Your task to perform on an android device: turn on data saver in the chrome app Image 0: 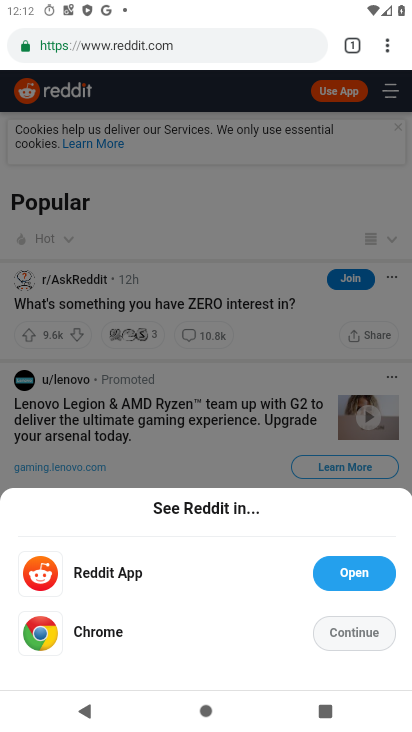
Step 0: press home button
Your task to perform on an android device: turn on data saver in the chrome app Image 1: 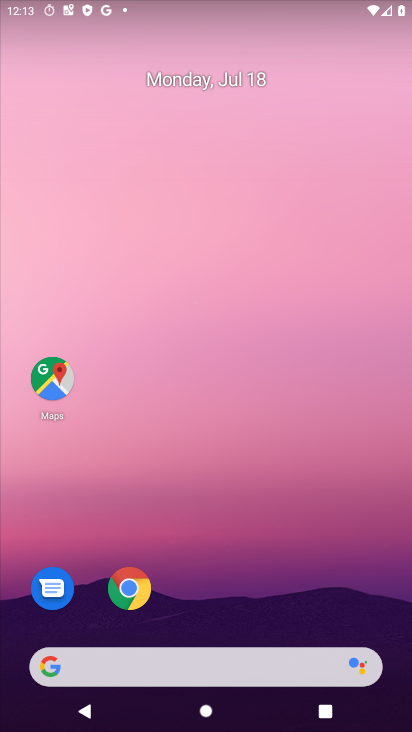
Step 1: click (133, 581)
Your task to perform on an android device: turn on data saver in the chrome app Image 2: 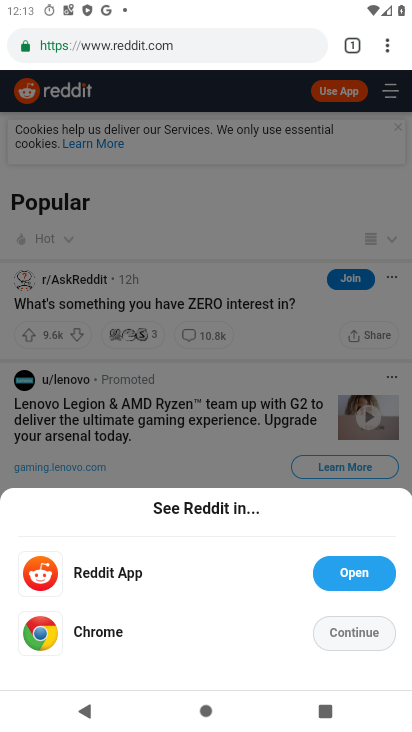
Step 2: click (379, 38)
Your task to perform on an android device: turn on data saver in the chrome app Image 3: 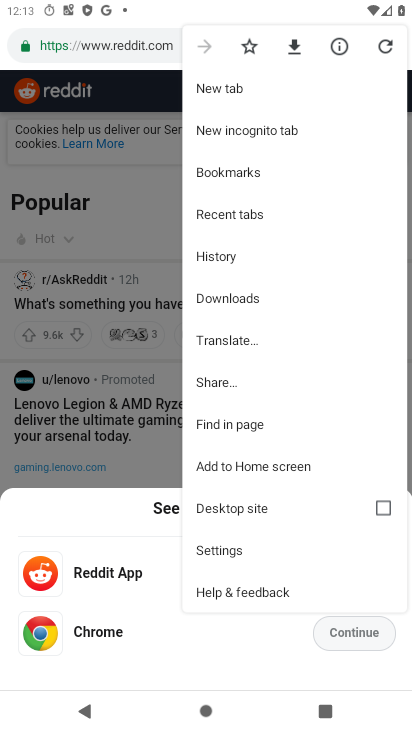
Step 3: click (255, 552)
Your task to perform on an android device: turn on data saver in the chrome app Image 4: 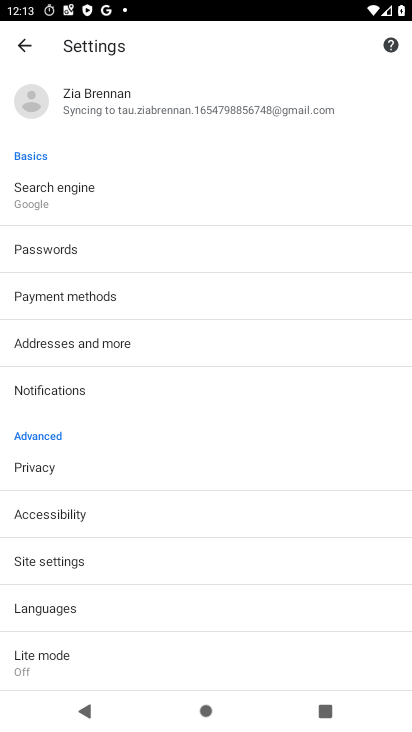
Step 4: click (101, 657)
Your task to perform on an android device: turn on data saver in the chrome app Image 5: 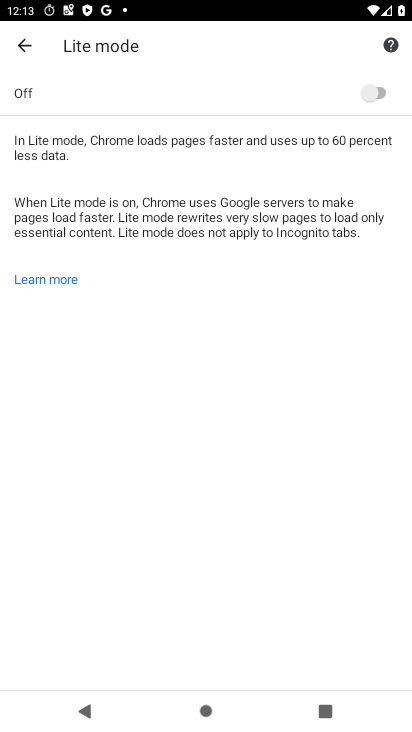
Step 5: click (378, 94)
Your task to perform on an android device: turn on data saver in the chrome app Image 6: 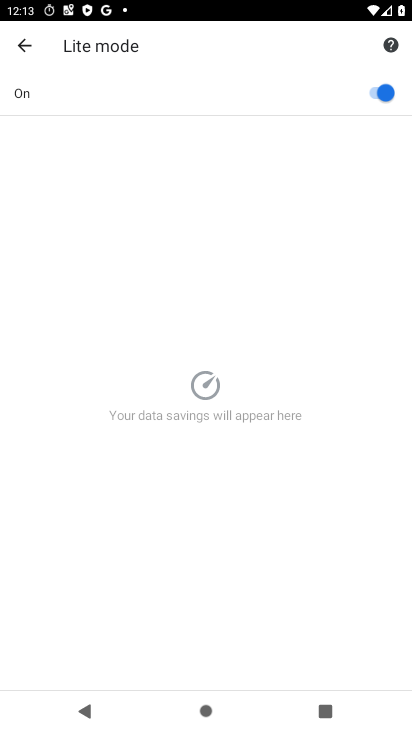
Step 6: task complete